Your task to perform on an android device: read, delete, or share a saved page in the chrome app Image 0: 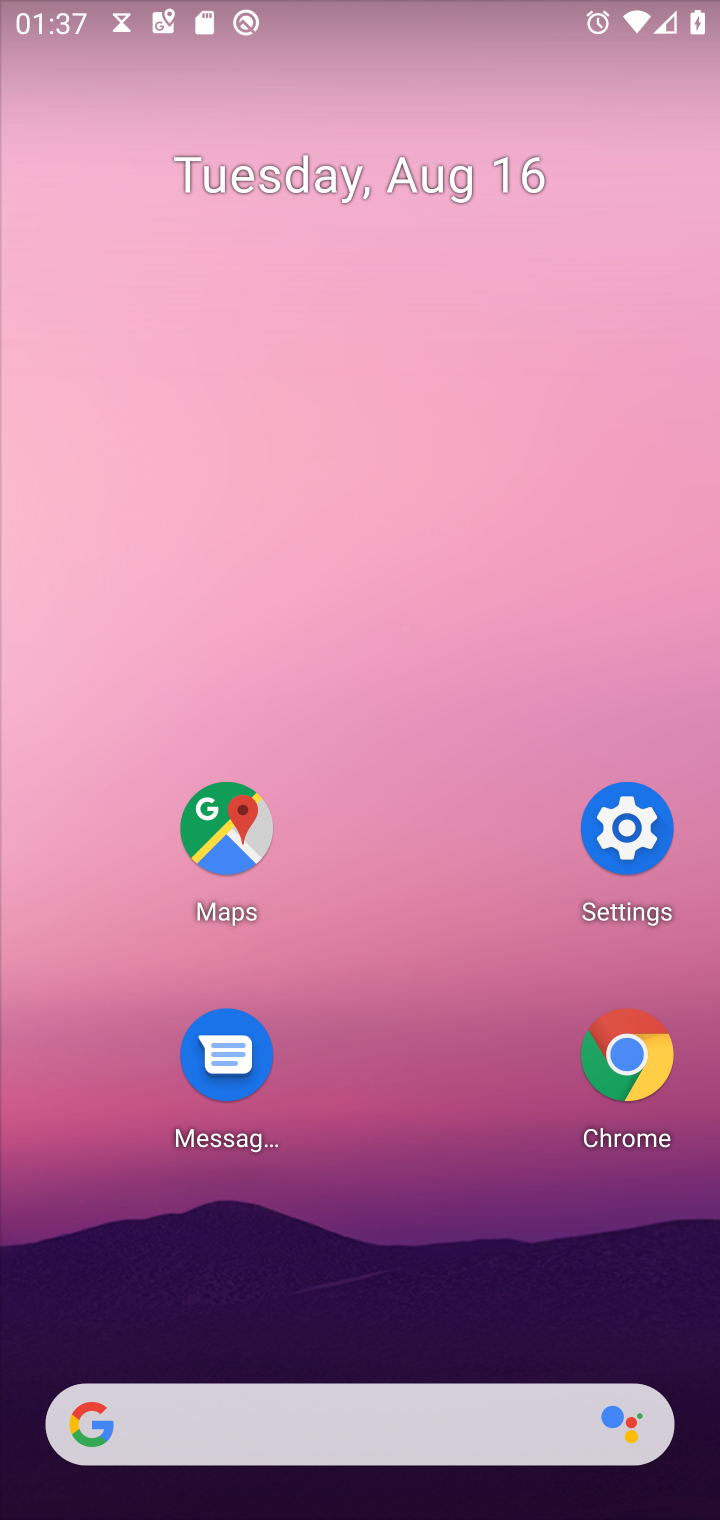
Step 0: press home button
Your task to perform on an android device: read, delete, or share a saved page in the chrome app Image 1: 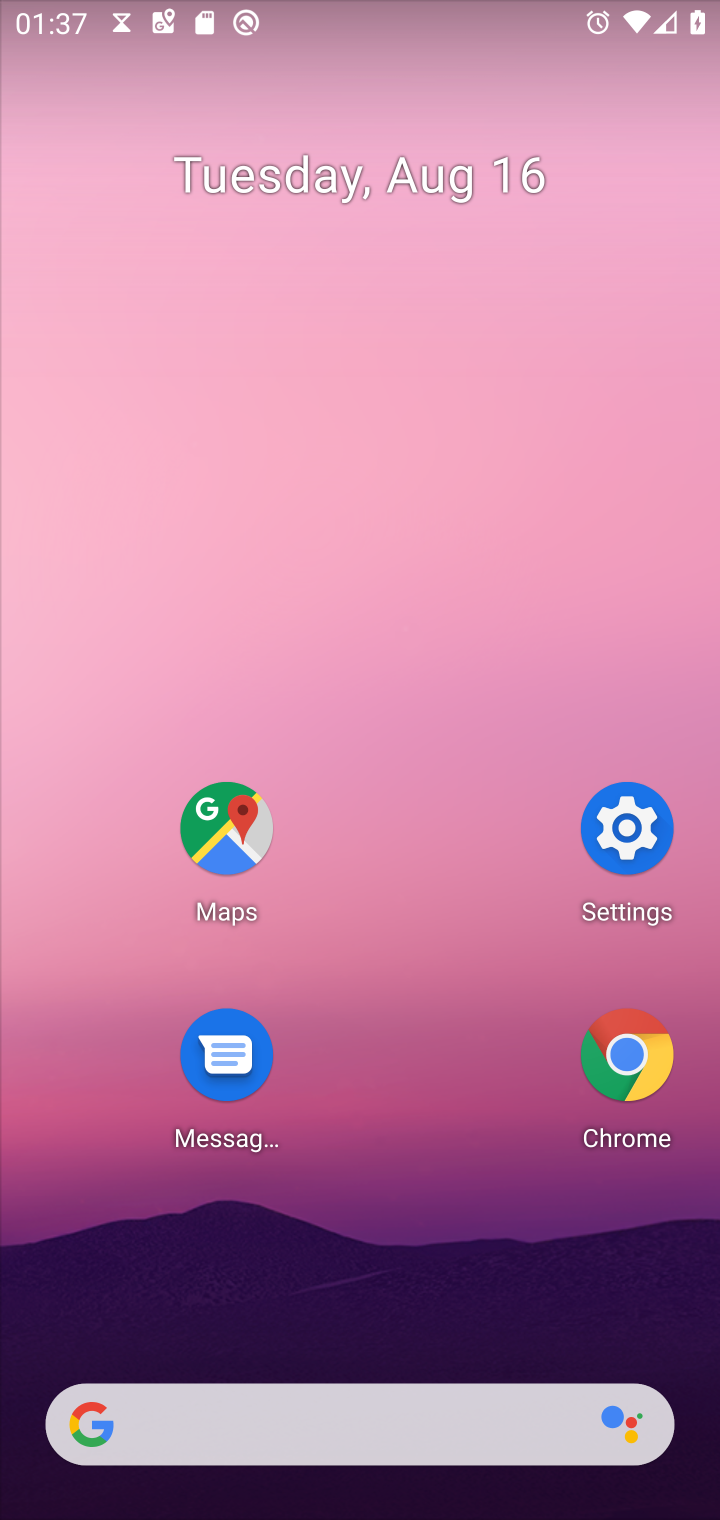
Step 1: click (623, 1053)
Your task to perform on an android device: read, delete, or share a saved page in the chrome app Image 2: 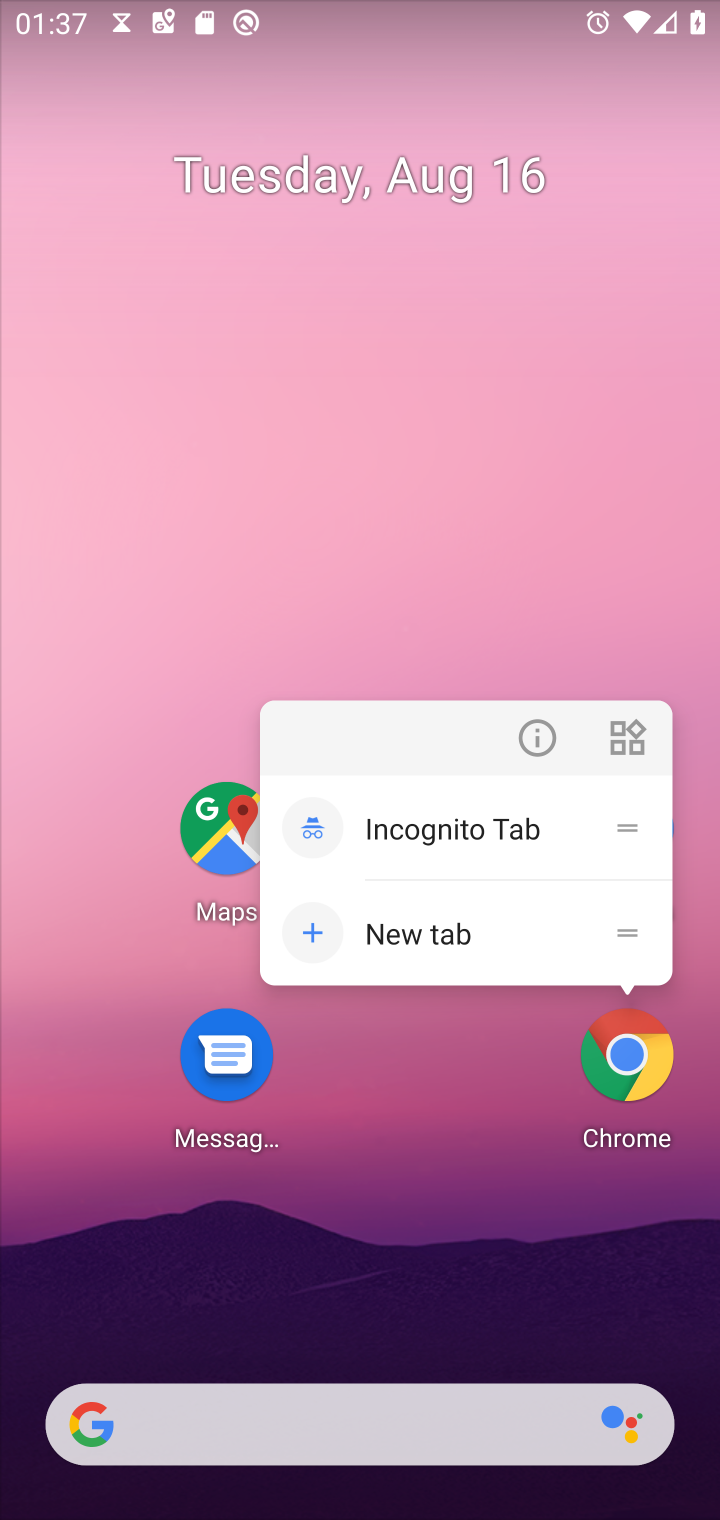
Step 2: click (623, 1064)
Your task to perform on an android device: read, delete, or share a saved page in the chrome app Image 3: 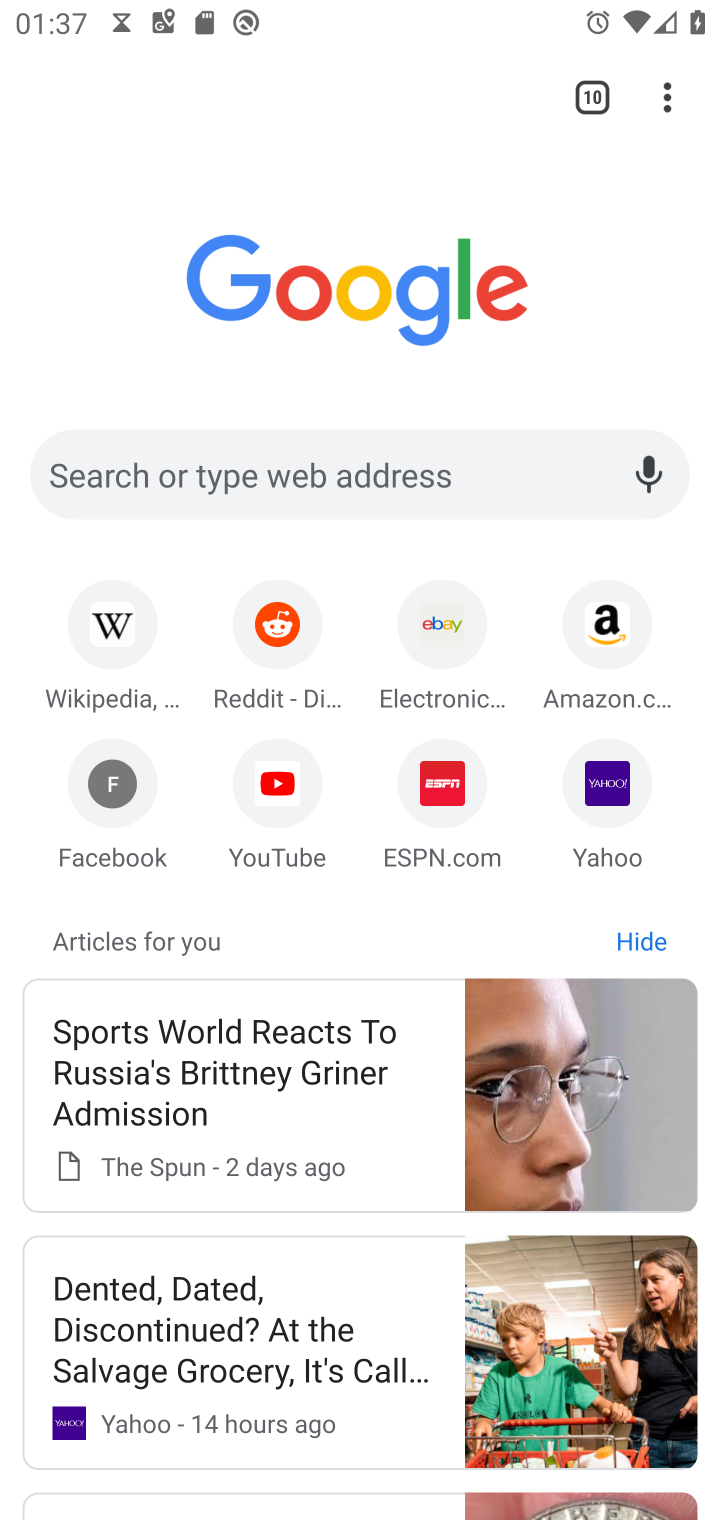
Step 3: drag from (672, 102) to (481, 642)
Your task to perform on an android device: read, delete, or share a saved page in the chrome app Image 4: 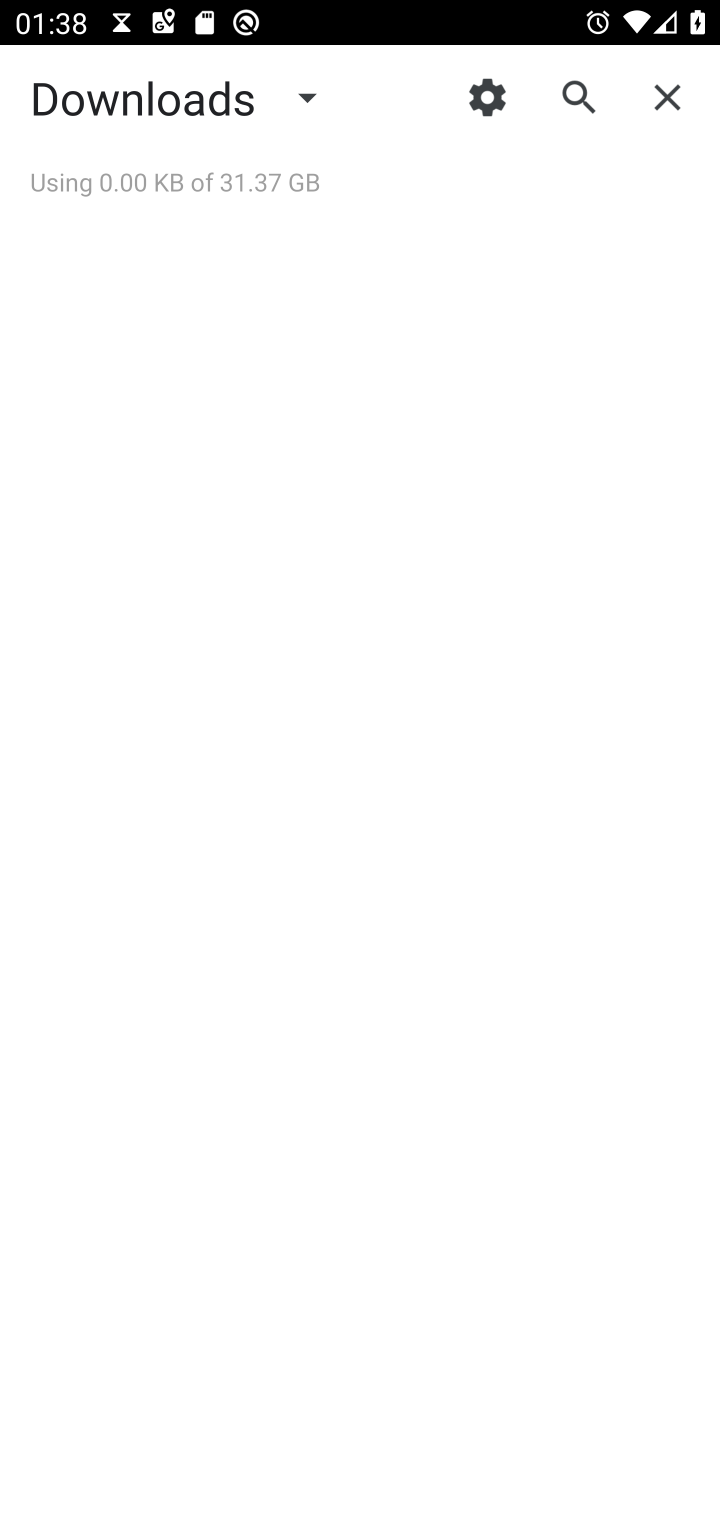
Step 4: click (304, 92)
Your task to perform on an android device: read, delete, or share a saved page in the chrome app Image 5: 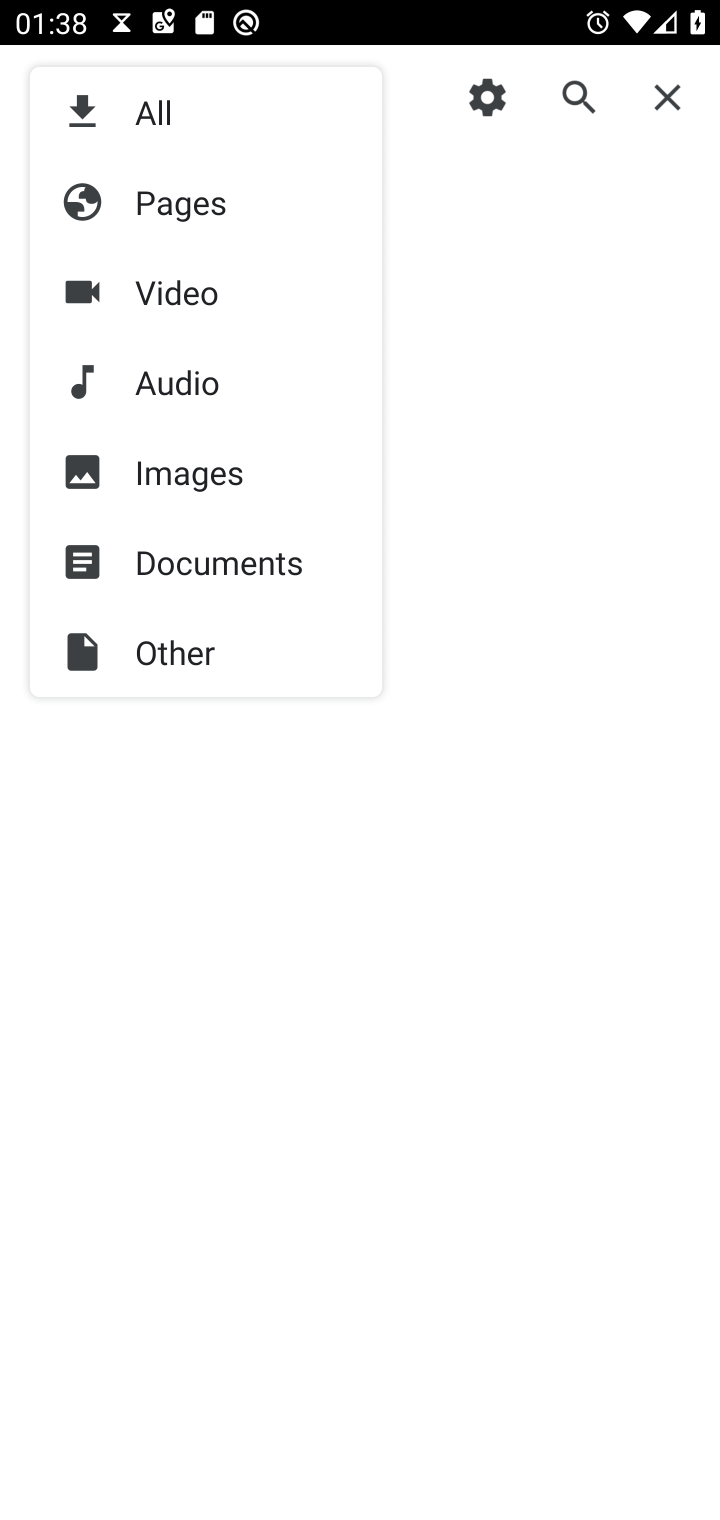
Step 5: click (192, 215)
Your task to perform on an android device: read, delete, or share a saved page in the chrome app Image 6: 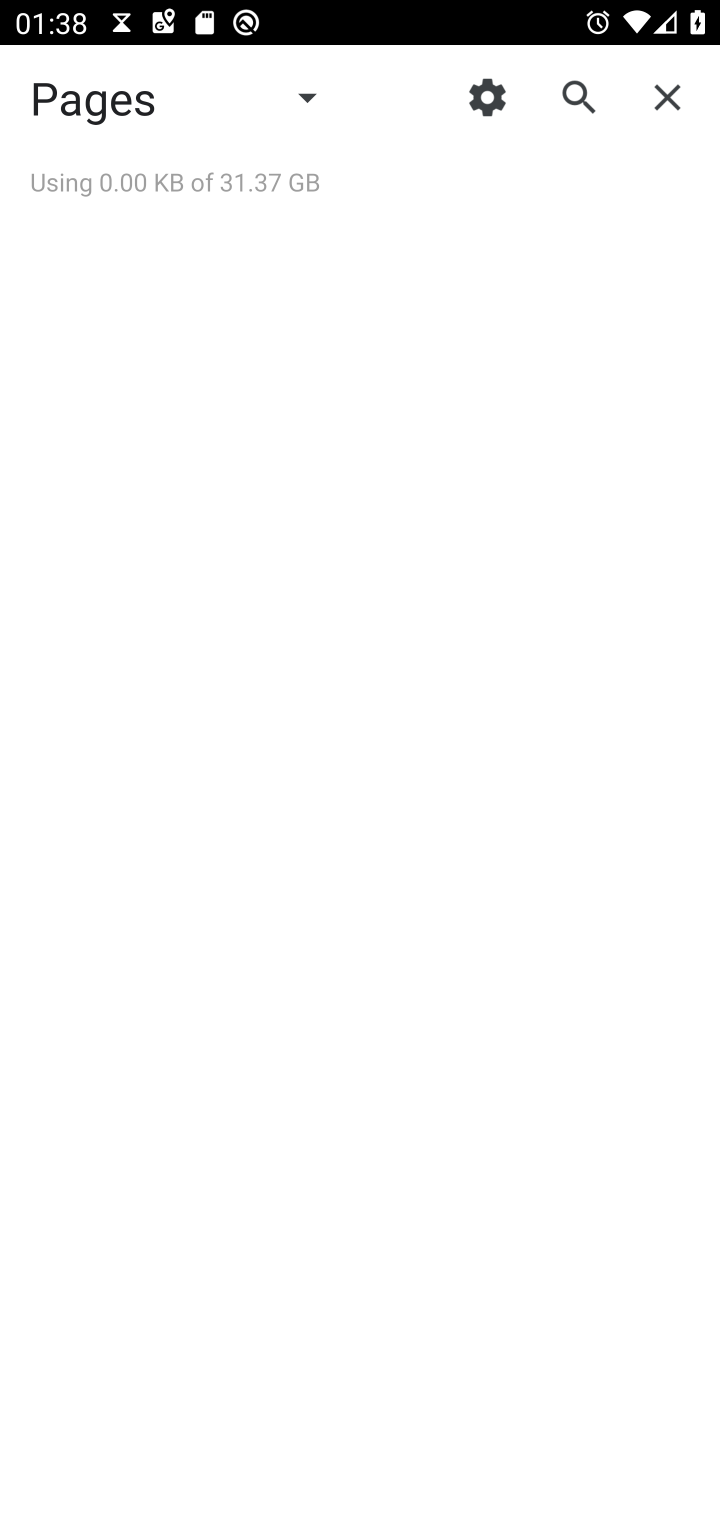
Step 6: task complete